Your task to perform on an android device: find which apps use the phone's location Image 0: 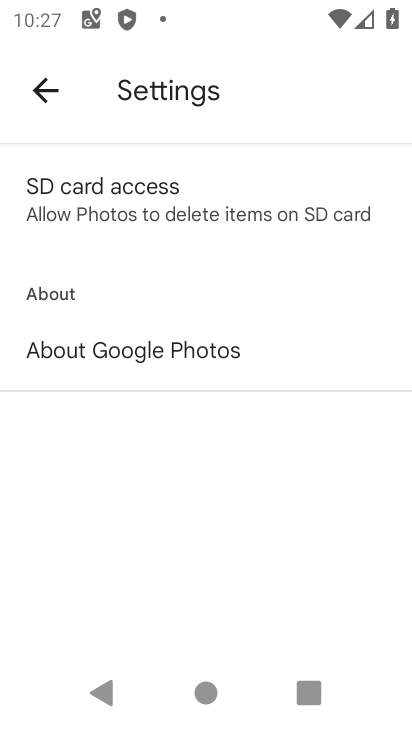
Step 0: press home button
Your task to perform on an android device: find which apps use the phone's location Image 1: 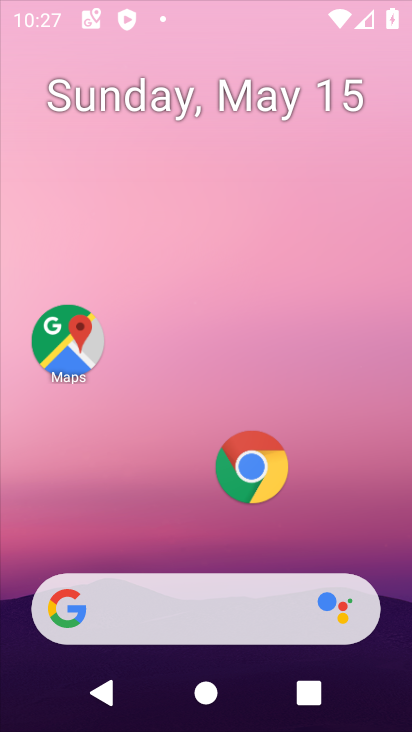
Step 1: drag from (158, 633) to (178, 446)
Your task to perform on an android device: find which apps use the phone's location Image 2: 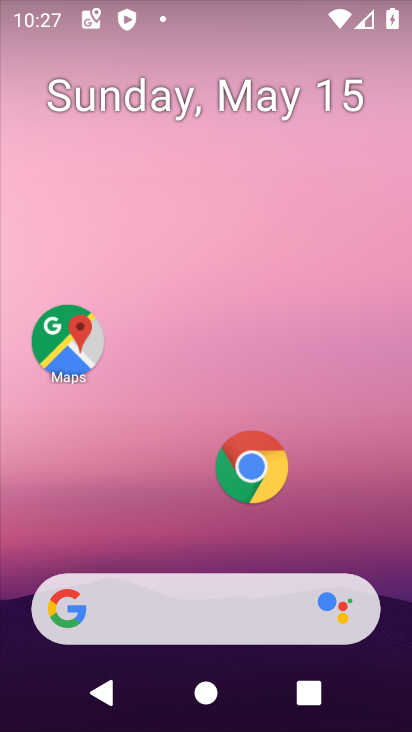
Step 2: drag from (218, 557) to (215, 123)
Your task to perform on an android device: find which apps use the phone's location Image 3: 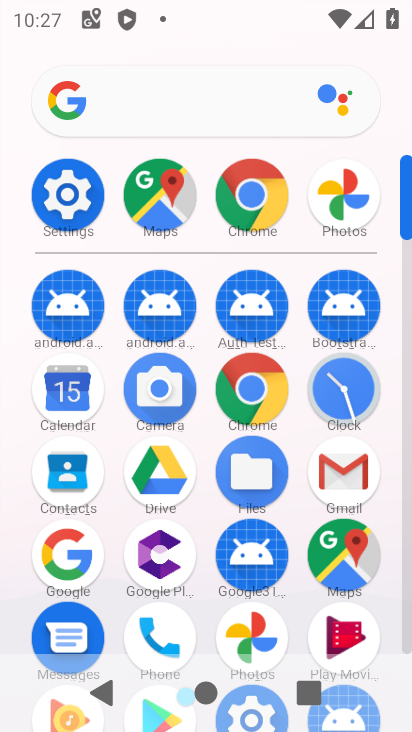
Step 3: click (77, 208)
Your task to perform on an android device: find which apps use the phone's location Image 4: 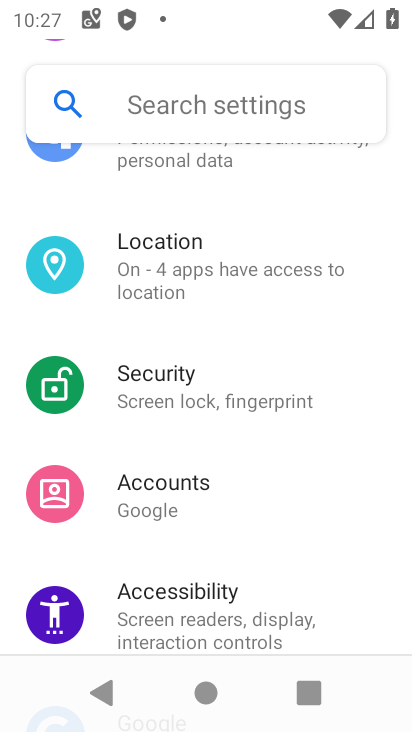
Step 4: drag from (260, 655) to (251, 570)
Your task to perform on an android device: find which apps use the phone's location Image 5: 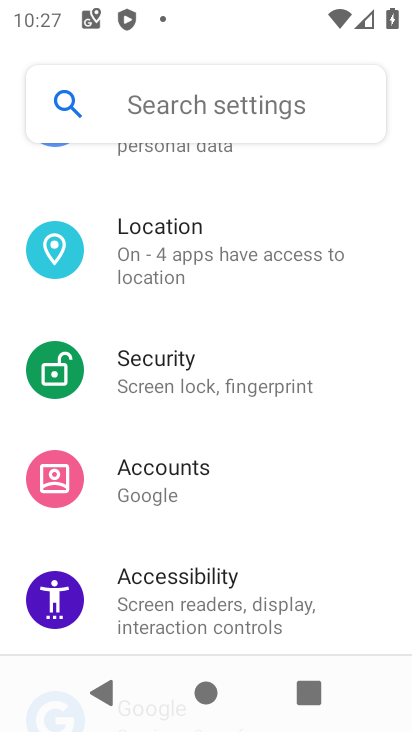
Step 5: click (228, 277)
Your task to perform on an android device: find which apps use the phone's location Image 6: 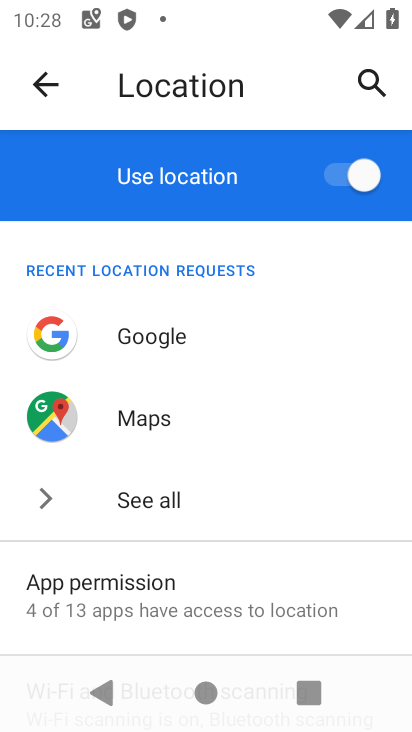
Step 6: drag from (152, 570) to (185, 348)
Your task to perform on an android device: find which apps use the phone's location Image 7: 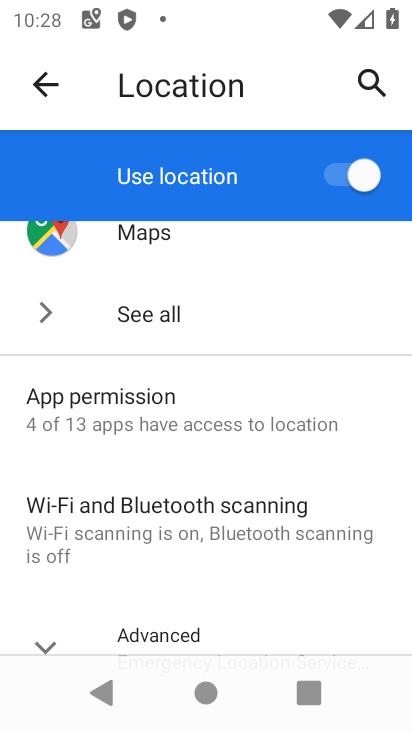
Step 7: click (151, 433)
Your task to perform on an android device: find which apps use the phone's location Image 8: 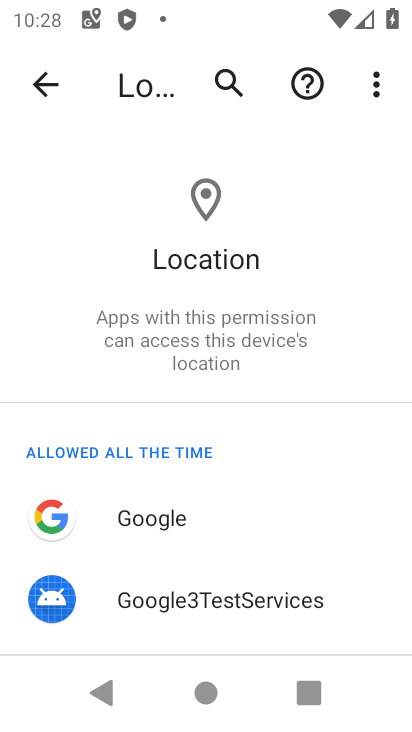
Step 8: task complete